Your task to perform on an android device: toggle pop-ups in chrome Image 0: 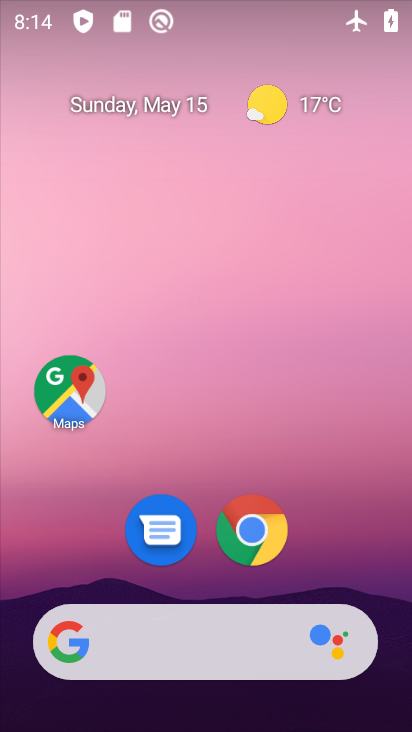
Step 0: click (247, 533)
Your task to perform on an android device: toggle pop-ups in chrome Image 1: 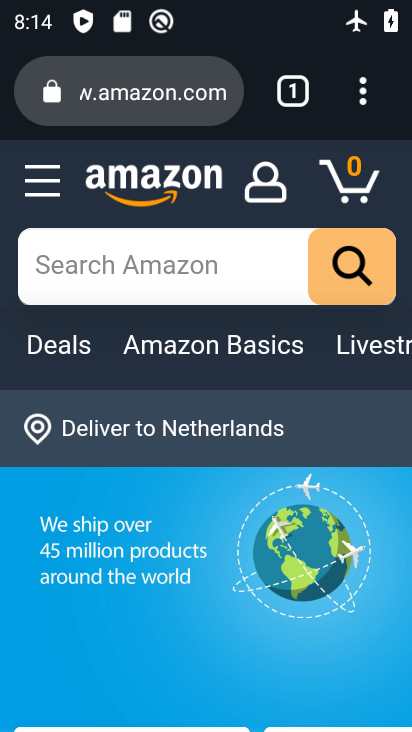
Step 1: click (364, 106)
Your task to perform on an android device: toggle pop-ups in chrome Image 2: 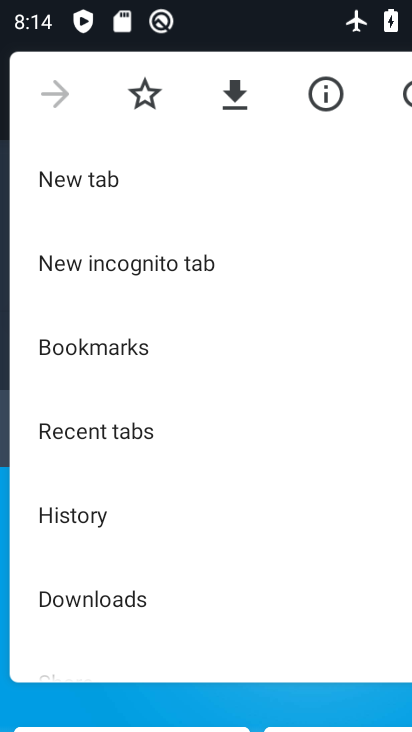
Step 2: drag from (113, 618) to (113, 274)
Your task to perform on an android device: toggle pop-ups in chrome Image 3: 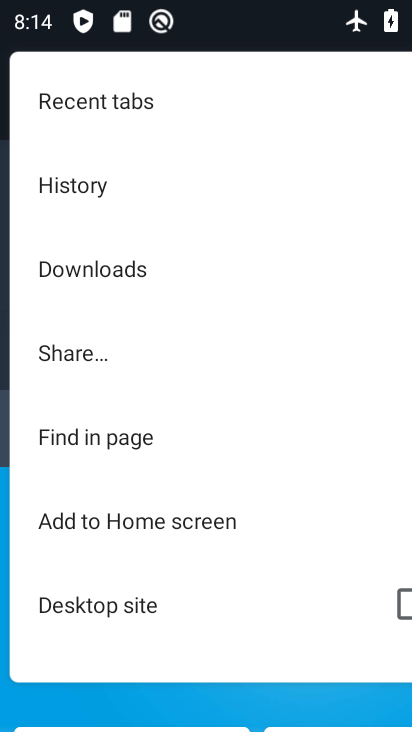
Step 3: drag from (119, 593) to (171, 221)
Your task to perform on an android device: toggle pop-ups in chrome Image 4: 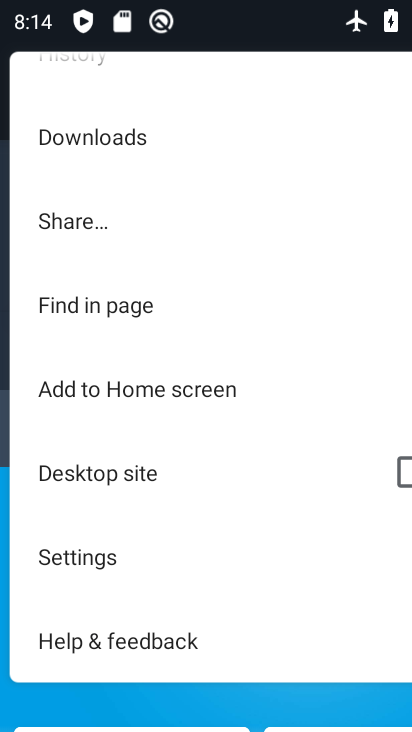
Step 4: click (74, 557)
Your task to perform on an android device: toggle pop-ups in chrome Image 5: 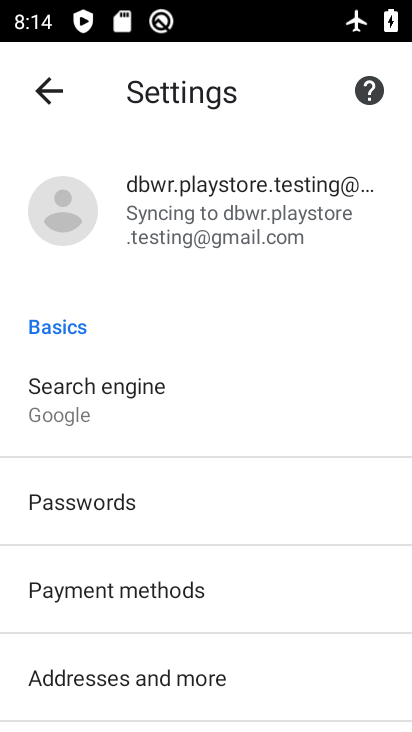
Step 5: drag from (135, 602) to (160, 257)
Your task to perform on an android device: toggle pop-ups in chrome Image 6: 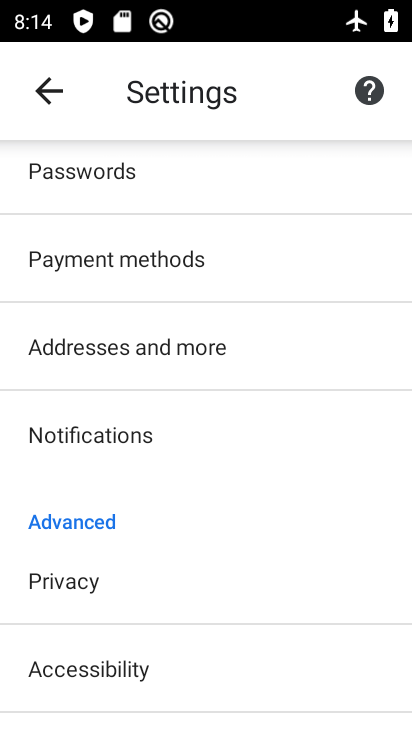
Step 6: drag from (116, 649) to (104, 262)
Your task to perform on an android device: toggle pop-ups in chrome Image 7: 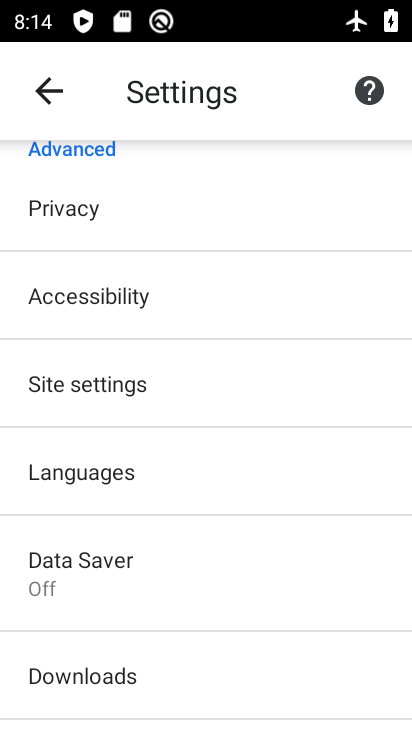
Step 7: click (88, 381)
Your task to perform on an android device: toggle pop-ups in chrome Image 8: 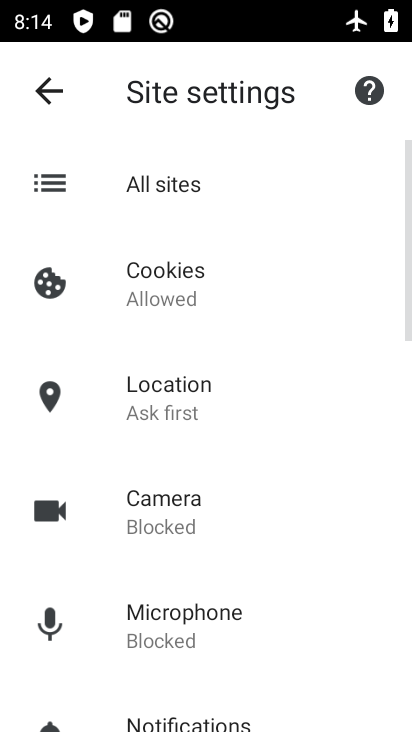
Step 8: drag from (181, 567) to (173, 262)
Your task to perform on an android device: toggle pop-ups in chrome Image 9: 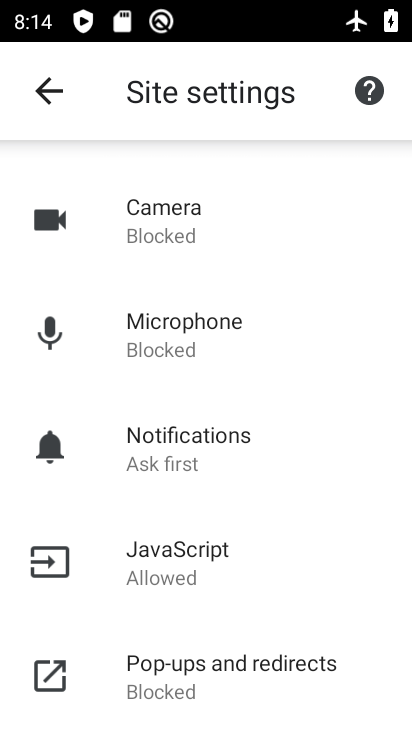
Step 9: click (177, 661)
Your task to perform on an android device: toggle pop-ups in chrome Image 10: 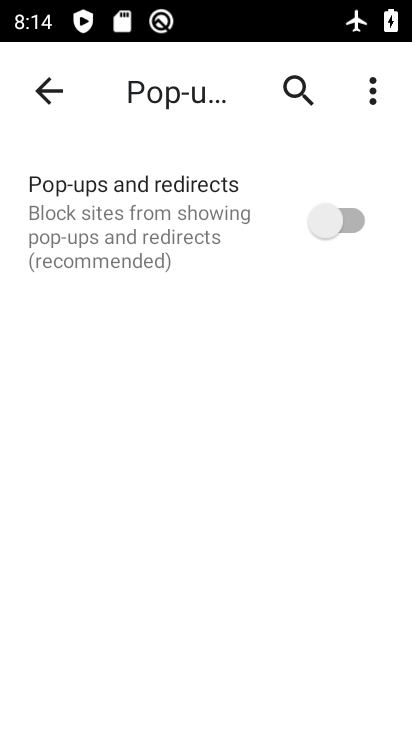
Step 10: click (355, 218)
Your task to perform on an android device: toggle pop-ups in chrome Image 11: 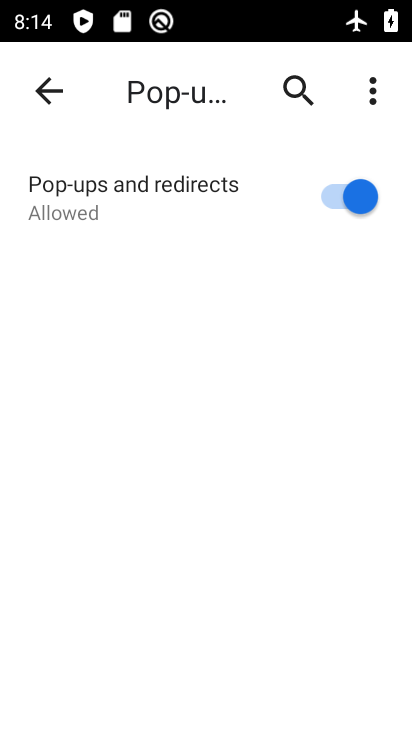
Step 11: task complete